Your task to perform on an android device: Open Google Chrome and click the shortcut for Amazon.com Image 0: 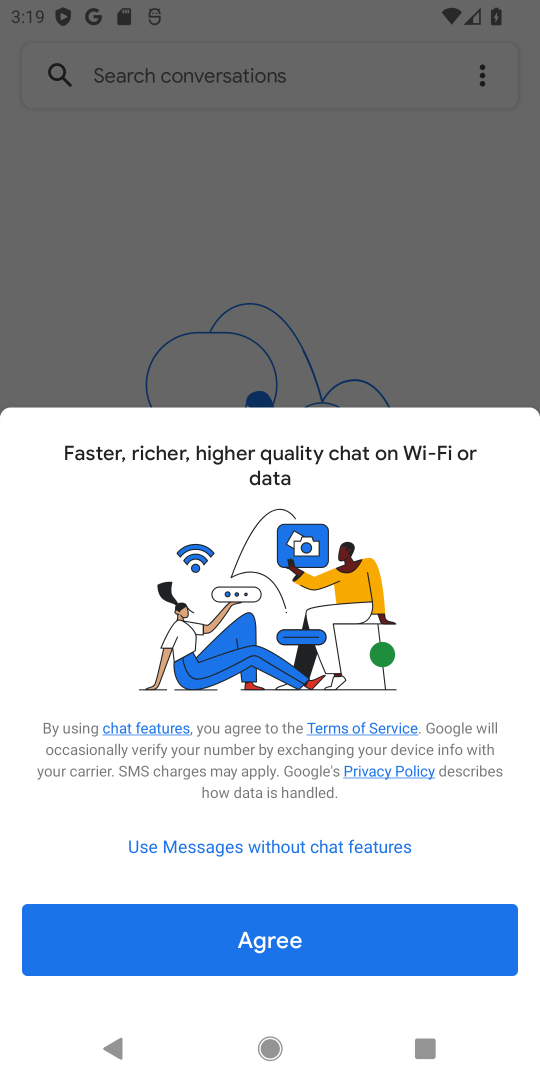
Step 0: press home button
Your task to perform on an android device: Open Google Chrome and click the shortcut for Amazon.com Image 1: 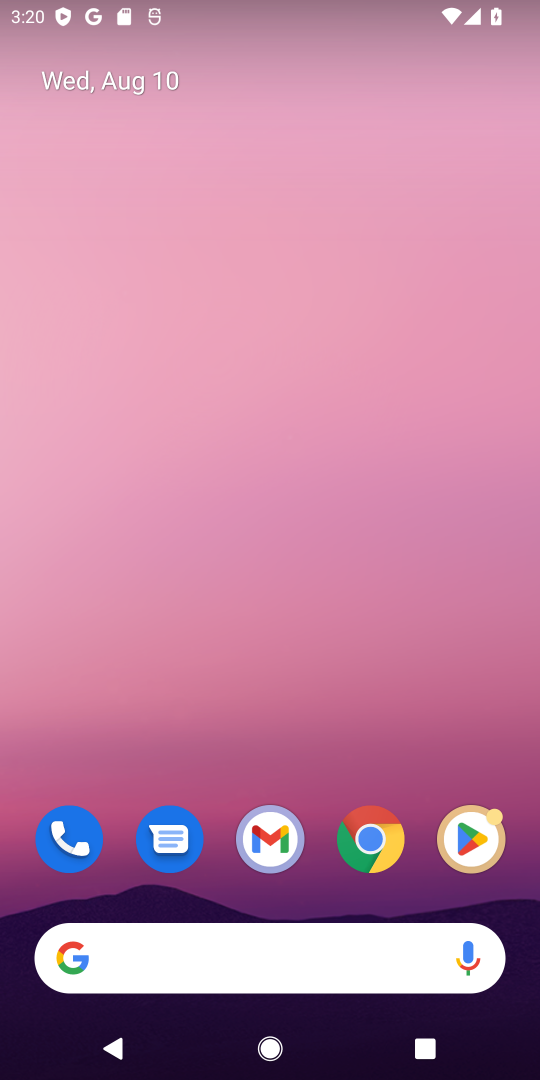
Step 1: click (371, 826)
Your task to perform on an android device: Open Google Chrome and click the shortcut for Amazon.com Image 2: 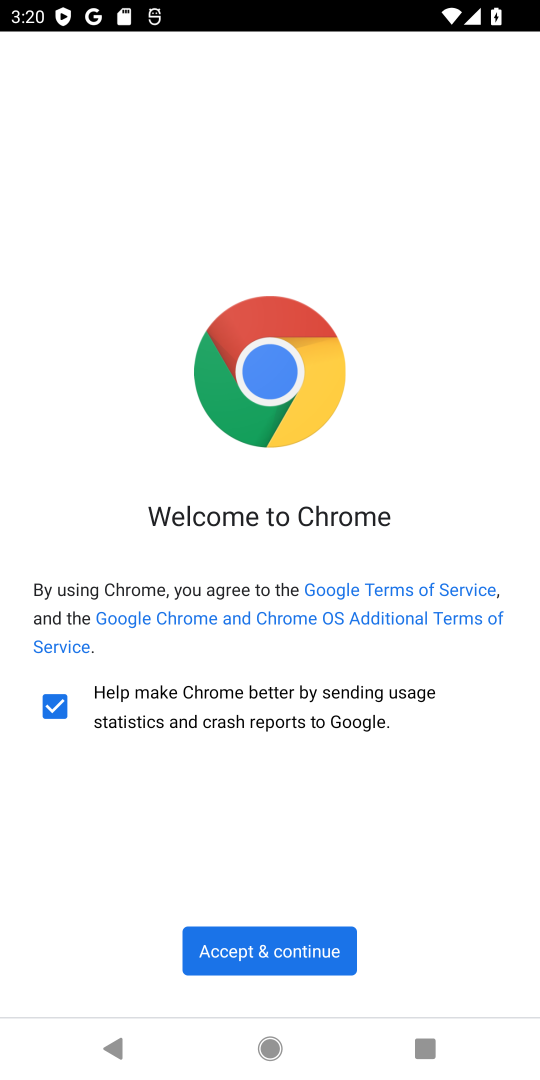
Step 2: click (226, 954)
Your task to perform on an android device: Open Google Chrome and click the shortcut for Amazon.com Image 3: 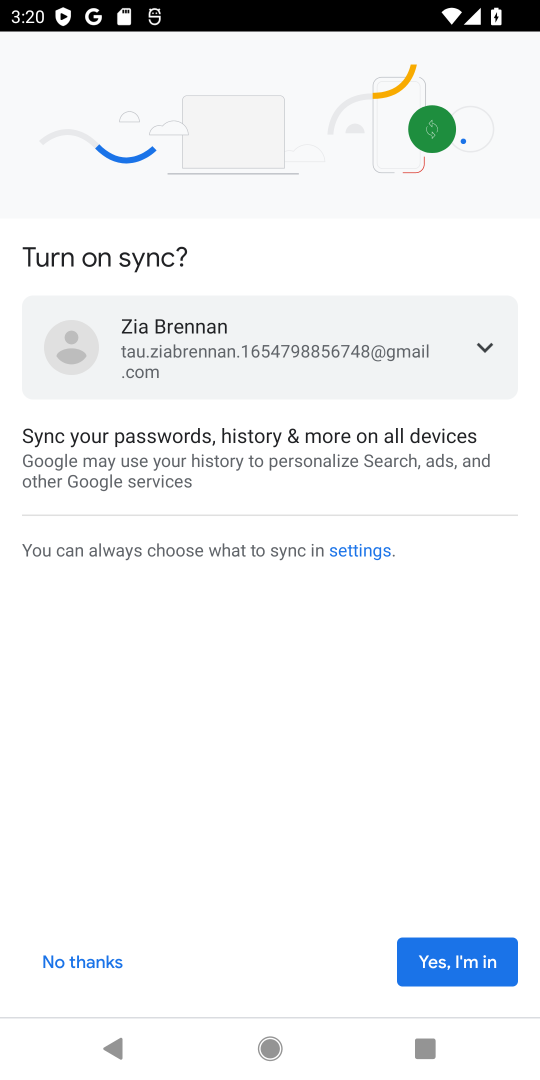
Step 3: click (57, 965)
Your task to perform on an android device: Open Google Chrome and click the shortcut for Amazon.com Image 4: 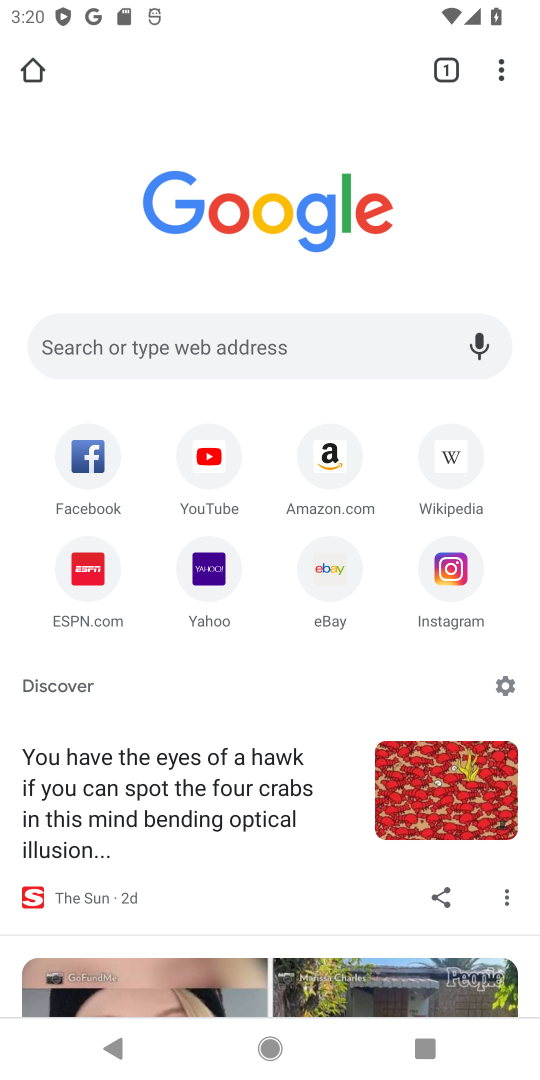
Step 4: click (322, 482)
Your task to perform on an android device: Open Google Chrome and click the shortcut for Amazon.com Image 5: 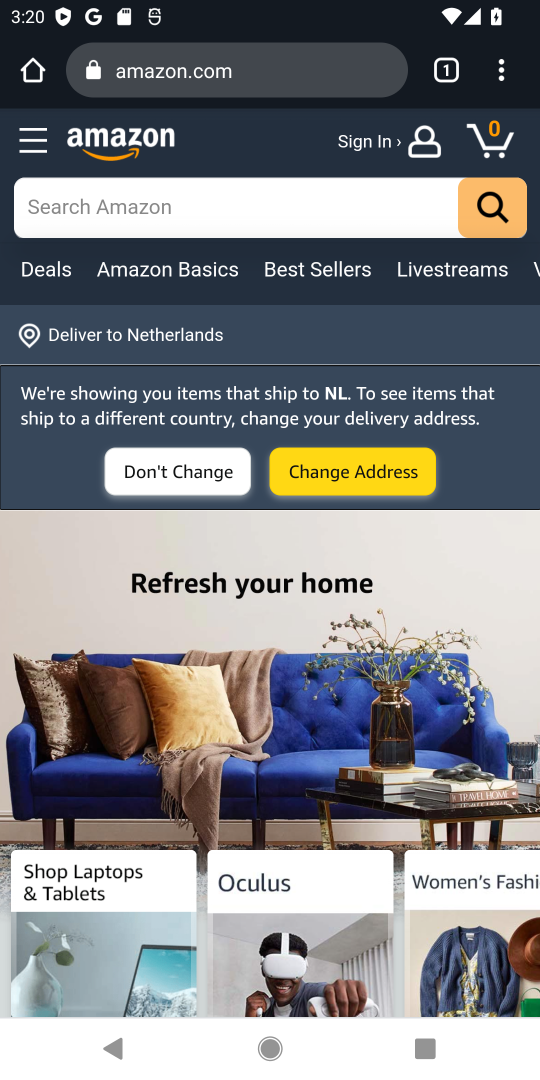
Step 5: task complete